Your task to perform on an android device: open a bookmark in the chrome app Image 0: 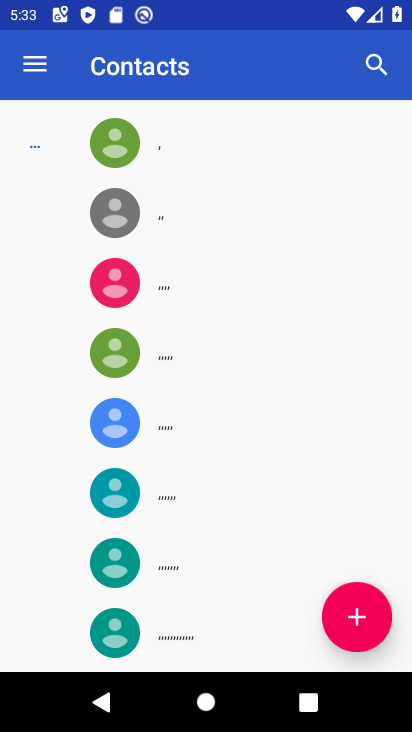
Step 0: press home button
Your task to perform on an android device: open a bookmark in the chrome app Image 1: 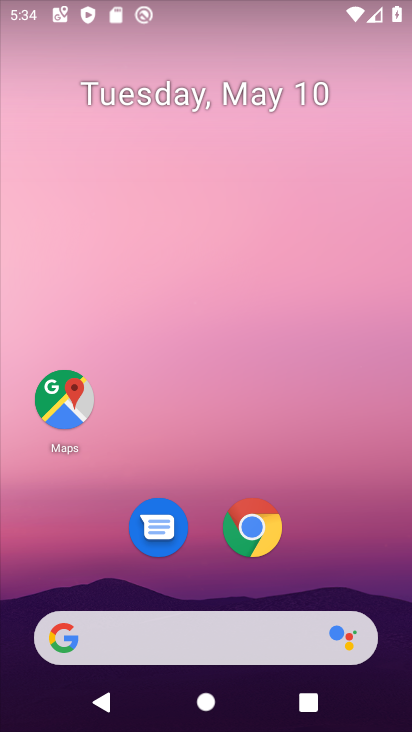
Step 1: click (248, 533)
Your task to perform on an android device: open a bookmark in the chrome app Image 2: 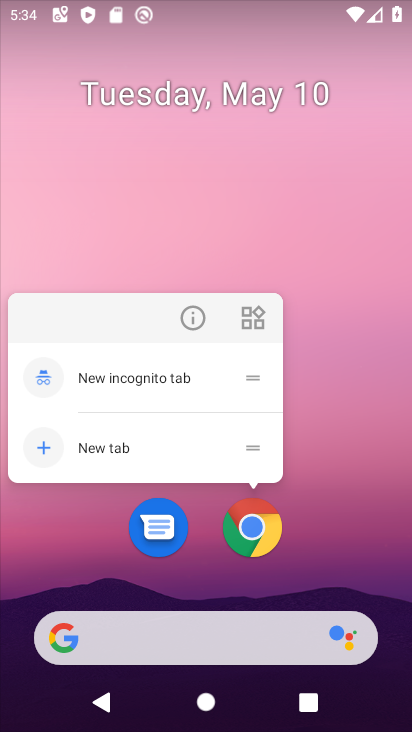
Step 2: click (268, 515)
Your task to perform on an android device: open a bookmark in the chrome app Image 3: 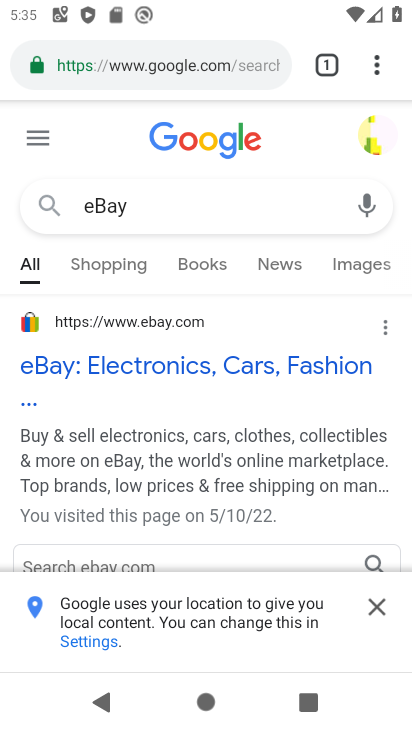
Step 3: press home button
Your task to perform on an android device: open a bookmark in the chrome app Image 4: 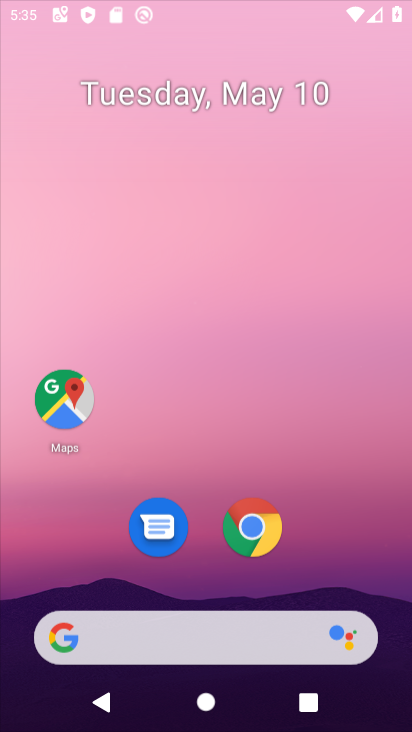
Step 4: press home button
Your task to perform on an android device: open a bookmark in the chrome app Image 5: 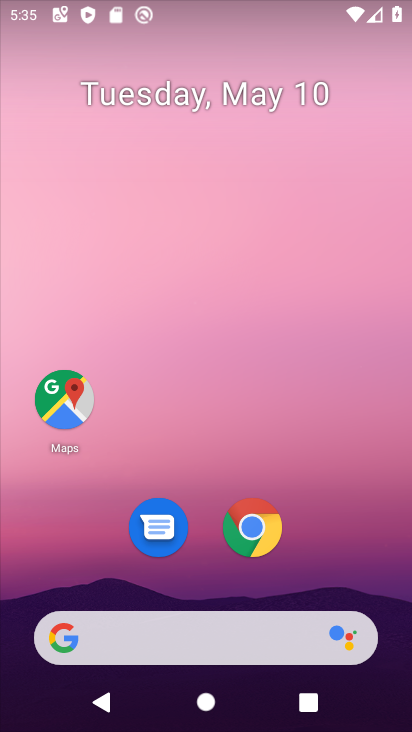
Step 5: click (267, 528)
Your task to perform on an android device: open a bookmark in the chrome app Image 6: 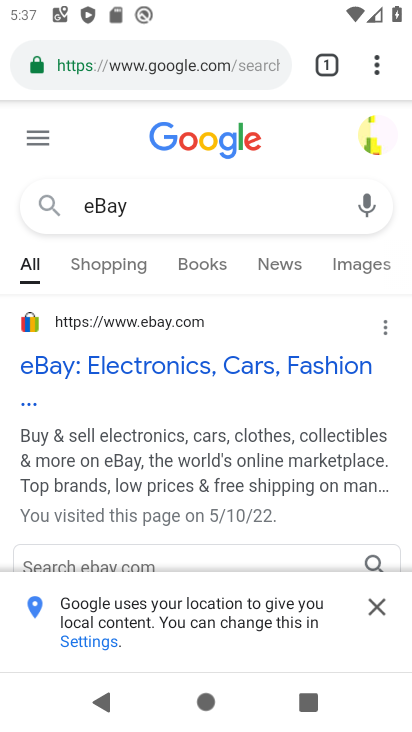
Step 6: click (375, 69)
Your task to perform on an android device: open a bookmark in the chrome app Image 7: 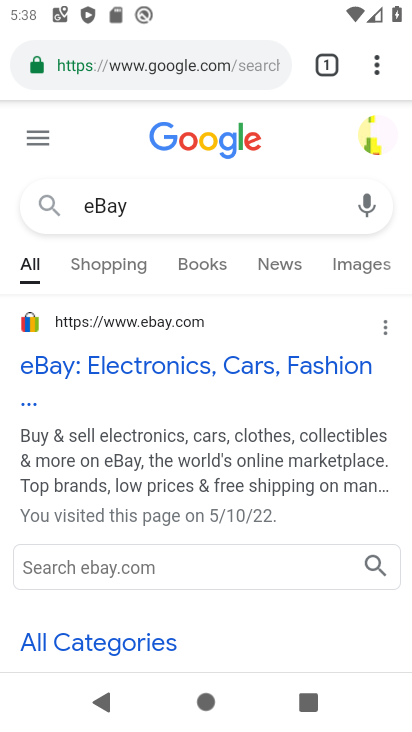
Step 7: click (378, 62)
Your task to perform on an android device: open a bookmark in the chrome app Image 8: 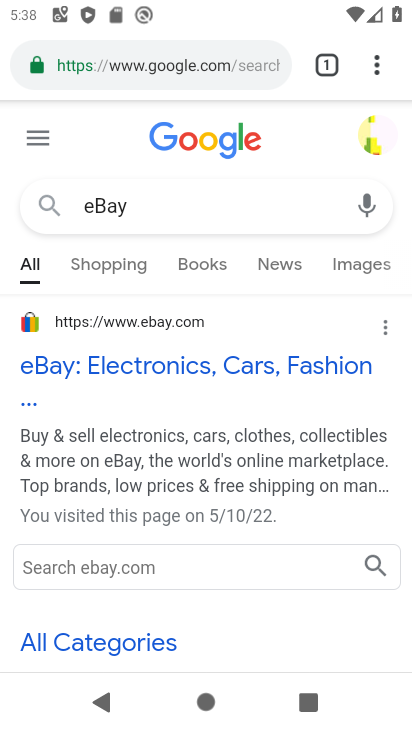
Step 8: click (367, 62)
Your task to perform on an android device: open a bookmark in the chrome app Image 9: 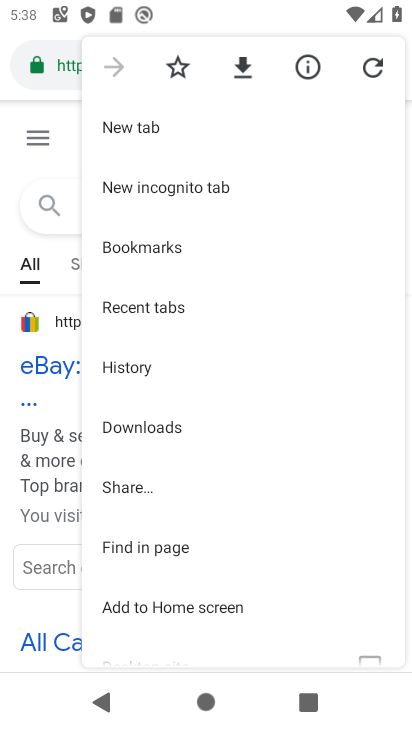
Step 9: click (204, 245)
Your task to perform on an android device: open a bookmark in the chrome app Image 10: 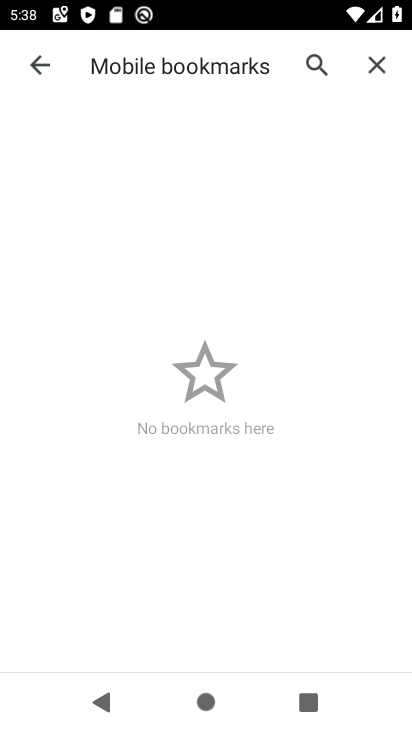
Step 10: task complete